Your task to perform on an android device: check out phone information Image 0: 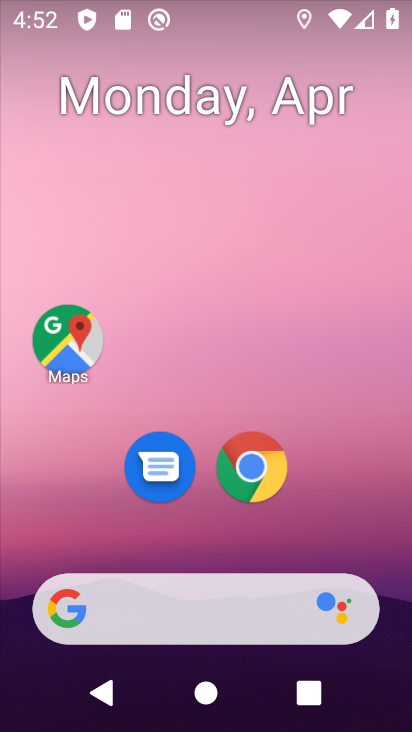
Step 0: drag from (348, 660) to (366, 69)
Your task to perform on an android device: check out phone information Image 1: 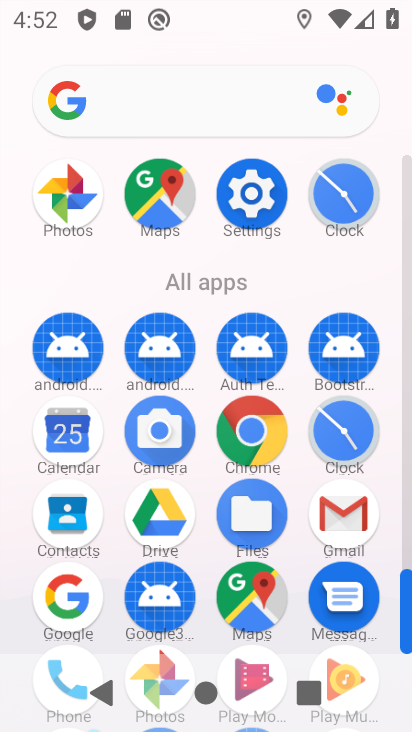
Step 1: drag from (305, 624) to (336, 101)
Your task to perform on an android device: check out phone information Image 2: 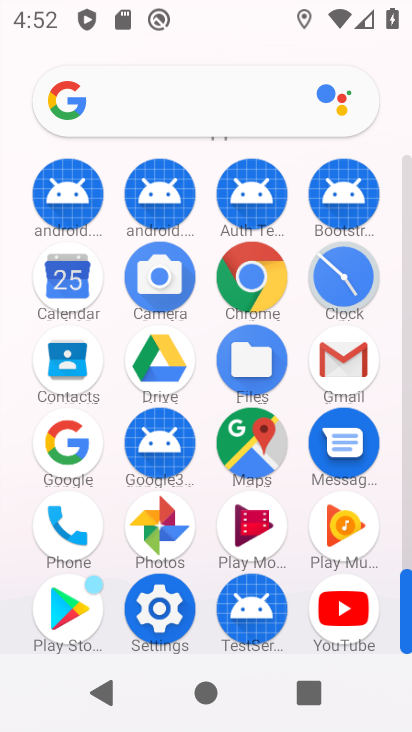
Step 2: click (158, 605)
Your task to perform on an android device: check out phone information Image 3: 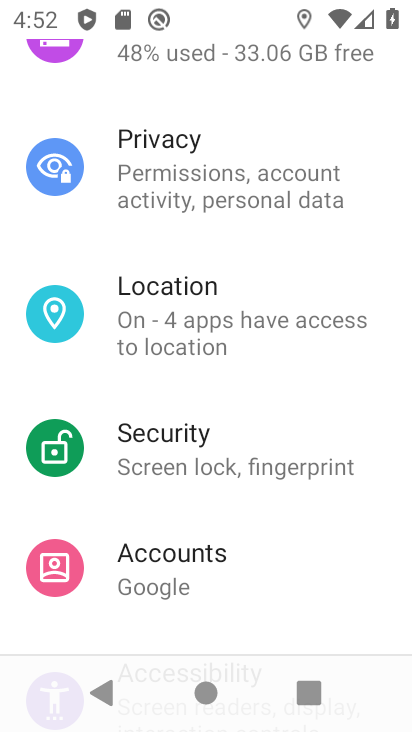
Step 3: drag from (235, 605) to (272, 96)
Your task to perform on an android device: check out phone information Image 4: 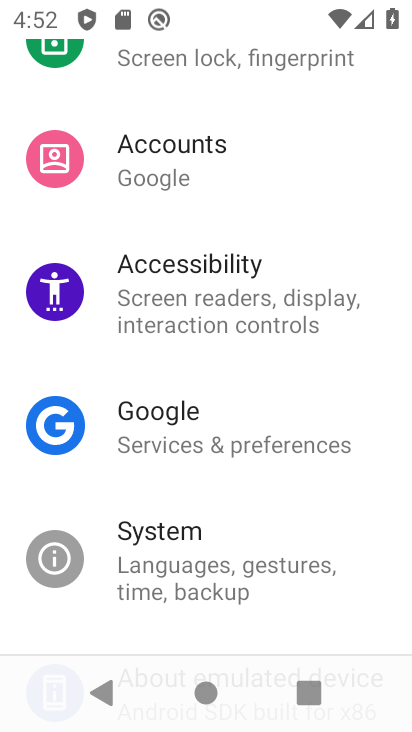
Step 4: drag from (285, 604) to (271, 93)
Your task to perform on an android device: check out phone information Image 5: 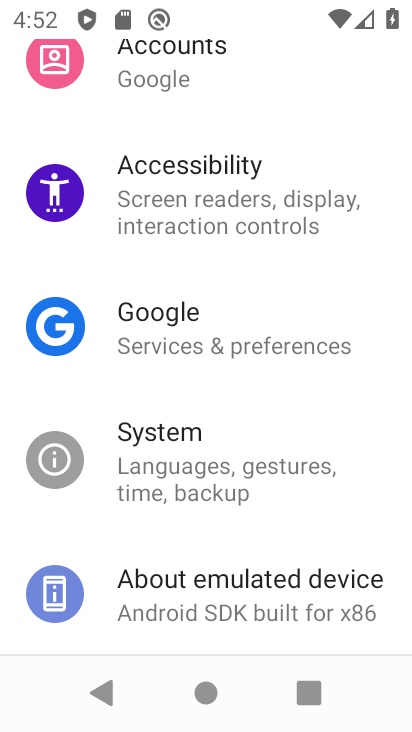
Step 5: click (276, 588)
Your task to perform on an android device: check out phone information Image 6: 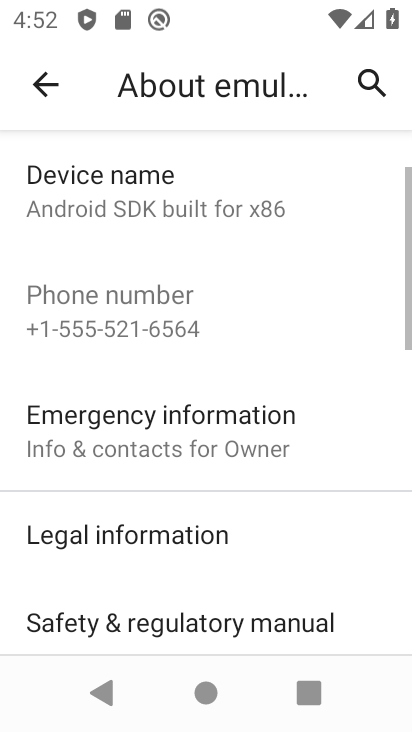
Step 6: task complete